Your task to perform on an android device: toggle show notifications on the lock screen Image 0: 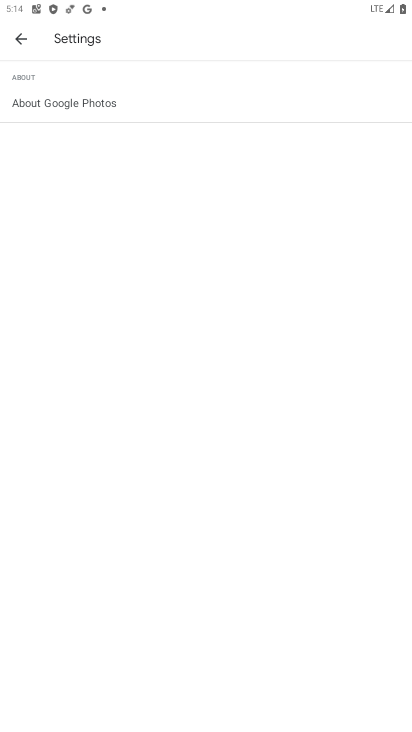
Step 0: press back button
Your task to perform on an android device: toggle show notifications on the lock screen Image 1: 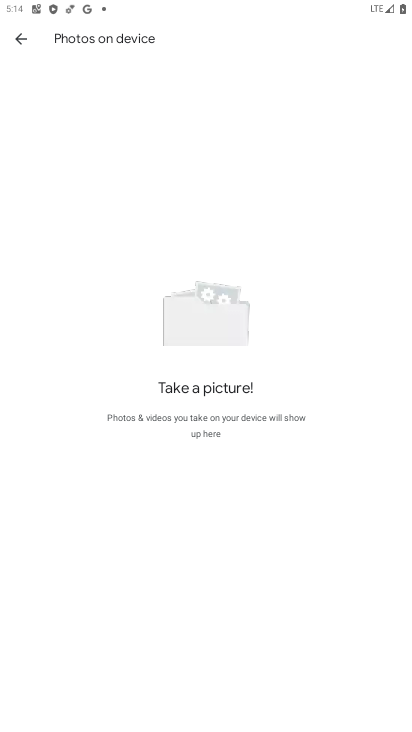
Step 1: press back button
Your task to perform on an android device: toggle show notifications on the lock screen Image 2: 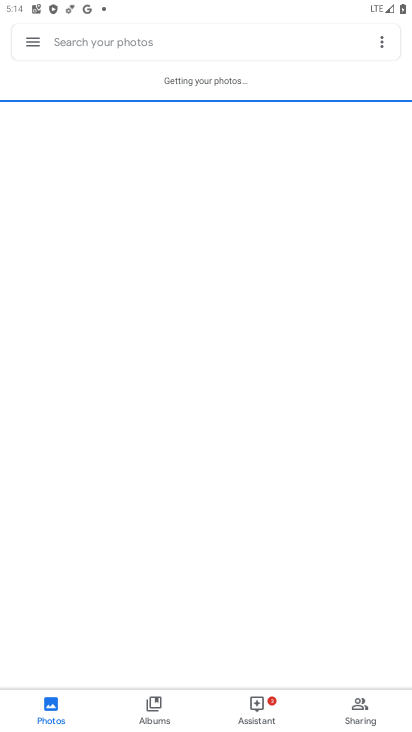
Step 2: press back button
Your task to perform on an android device: toggle show notifications on the lock screen Image 3: 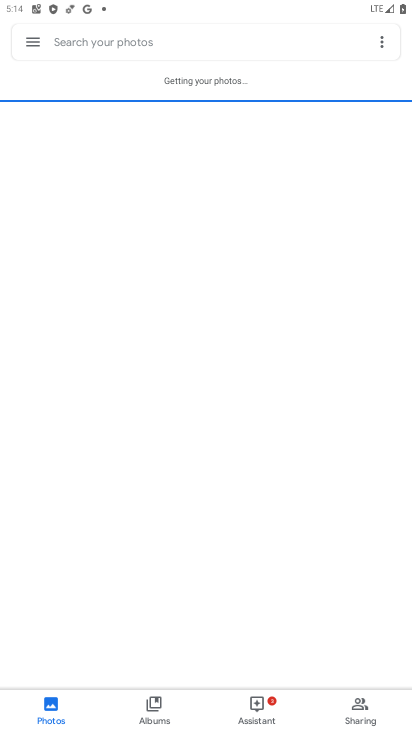
Step 3: press back button
Your task to perform on an android device: toggle show notifications on the lock screen Image 4: 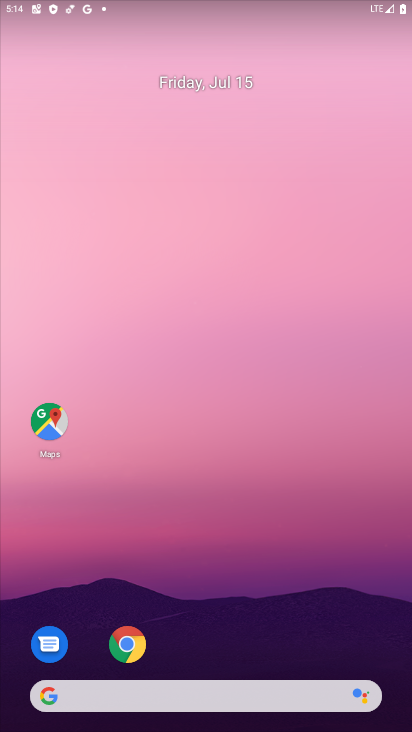
Step 4: press home button
Your task to perform on an android device: toggle show notifications on the lock screen Image 5: 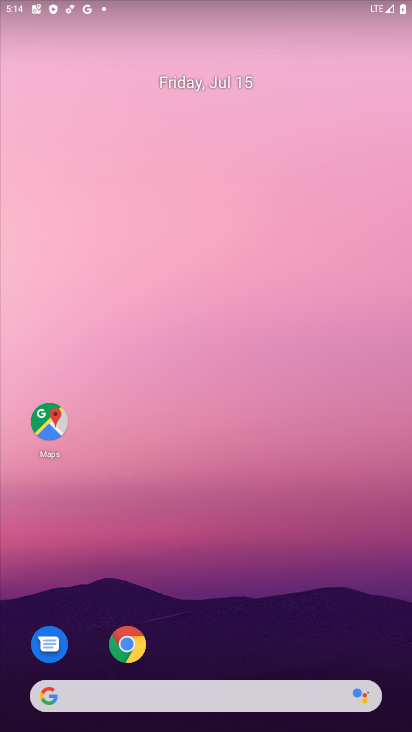
Step 5: drag from (249, 658) to (151, 120)
Your task to perform on an android device: toggle show notifications on the lock screen Image 6: 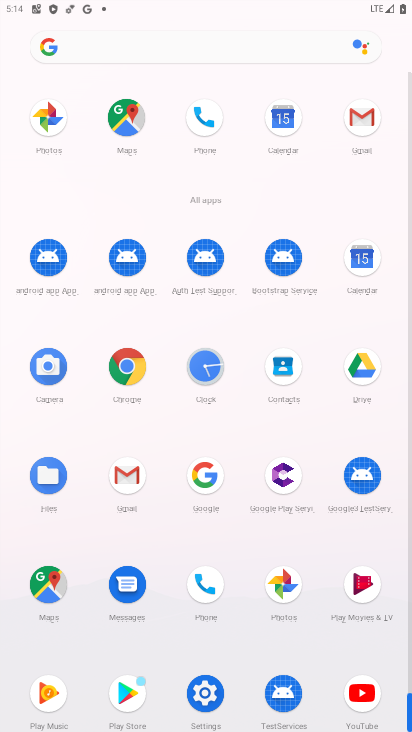
Step 6: click (210, 681)
Your task to perform on an android device: toggle show notifications on the lock screen Image 7: 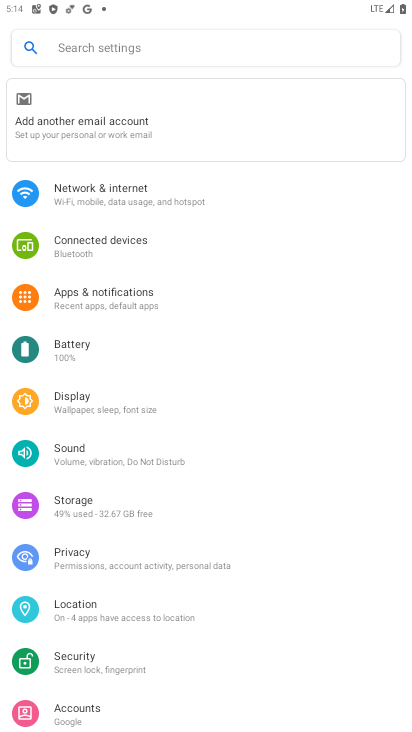
Step 7: click (93, 299)
Your task to perform on an android device: toggle show notifications on the lock screen Image 8: 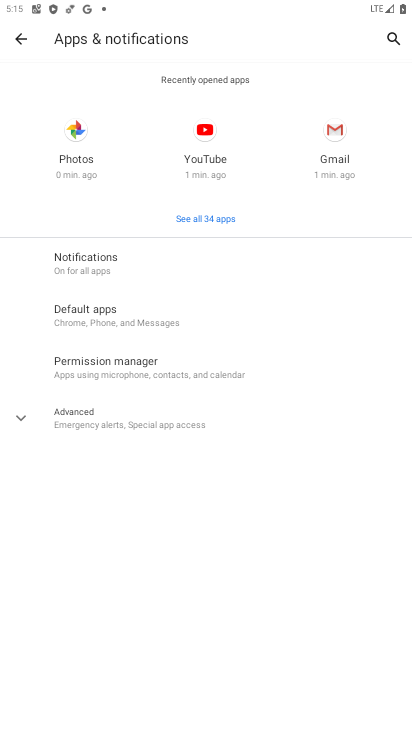
Step 8: click (104, 255)
Your task to perform on an android device: toggle show notifications on the lock screen Image 9: 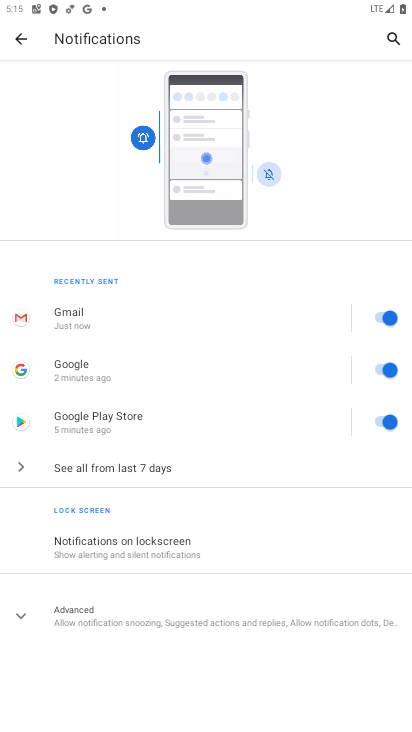
Step 9: click (86, 551)
Your task to perform on an android device: toggle show notifications on the lock screen Image 10: 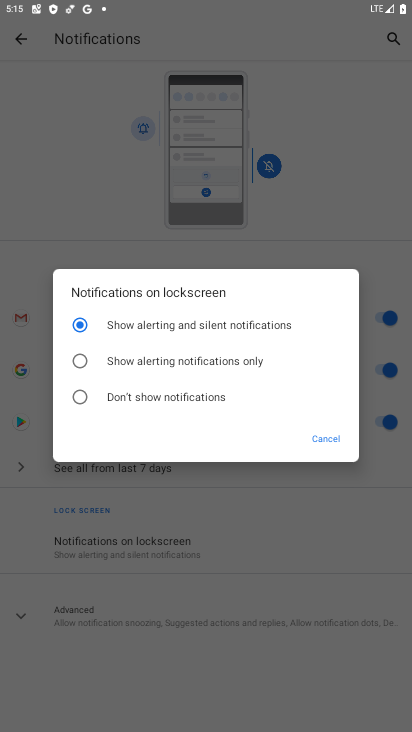
Step 10: click (79, 394)
Your task to perform on an android device: toggle show notifications on the lock screen Image 11: 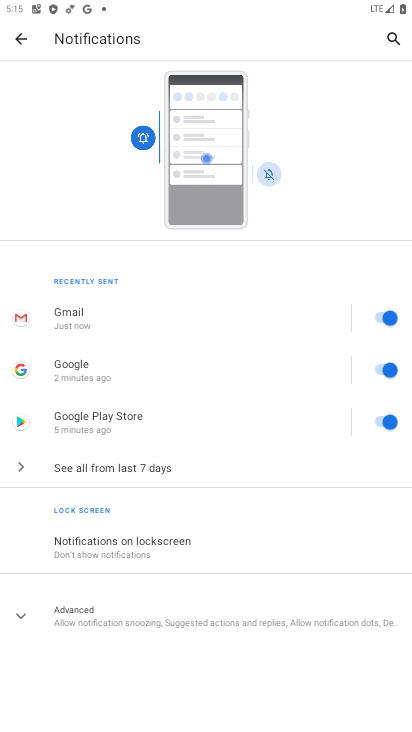
Step 11: task complete